Your task to perform on an android device: toggle notifications settings in the gmail app Image 0: 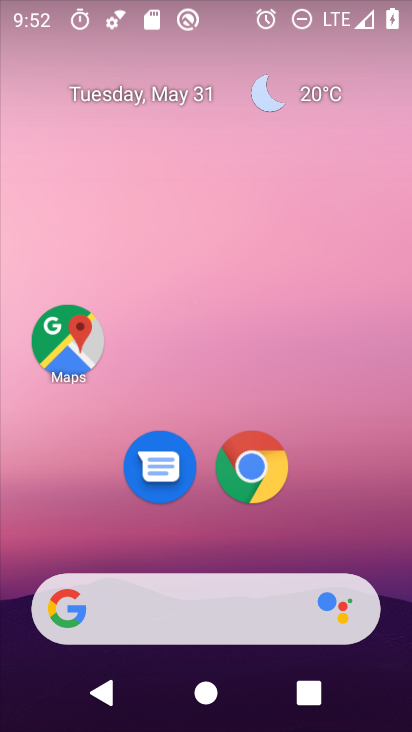
Step 0: drag from (200, 544) to (181, 257)
Your task to perform on an android device: toggle notifications settings in the gmail app Image 1: 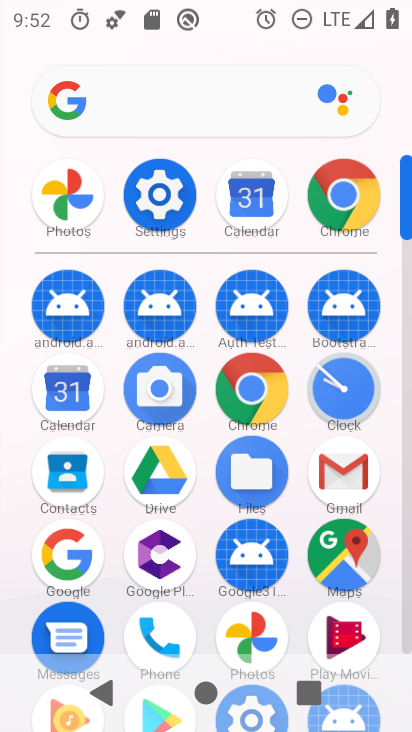
Step 1: click (321, 468)
Your task to perform on an android device: toggle notifications settings in the gmail app Image 2: 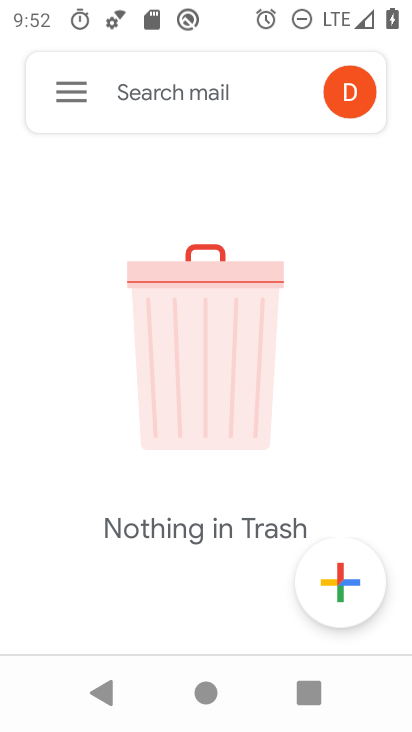
Step 2: drag from (230, 553) to (208, 236)
Your task to perform on an android device: toggle notifications settings in the gmail app Image 3: 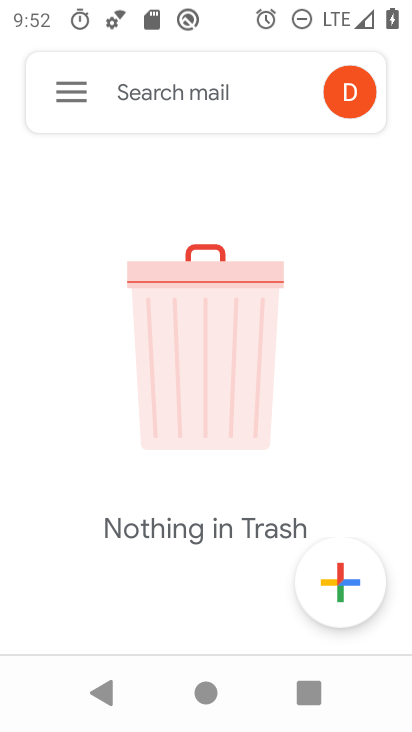
Step 3: click (75, 89)
Your task to perform on an android device: toggle notifications settings in the gmail app Image 4: 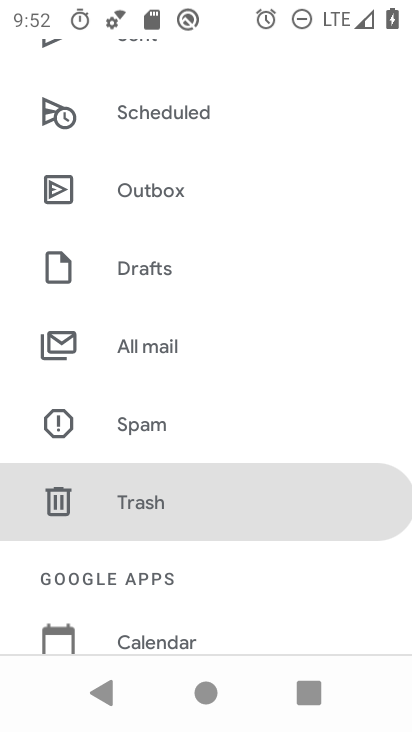
Step 4: drag from (238, 236) to (299, 658)
Your task to perform on an android device: toggle notifications settings in the gmail app Image 5: 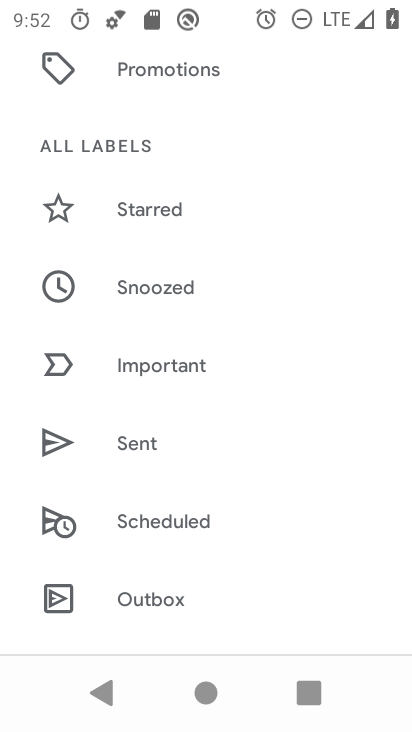
Step 5: drag from (189, 546) to (282, 255)
Your task to perform on an android device: toggle notifications settings in the gmail app Image 6: 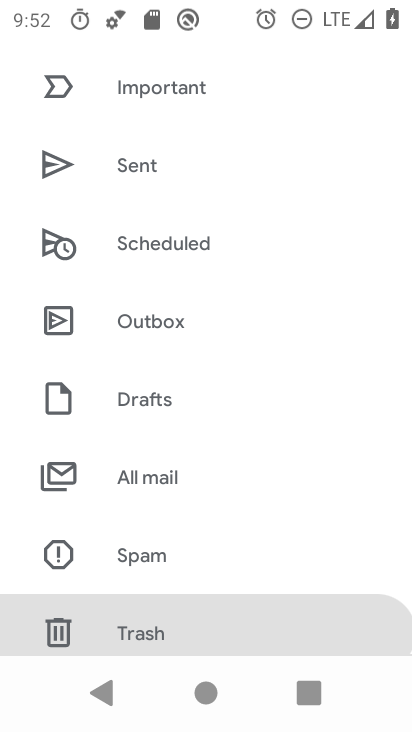
Step 6: drag from (173, 551) to (267, 144)
Your task to perform on an android device: toggle notifications settings in the gmail app Image 7: 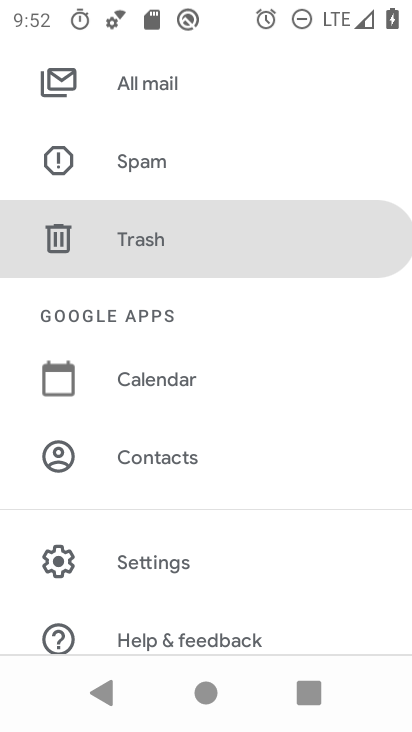
Step 7: click (198, 560)
Your task to perform on an android device: toggle notifications settings in the gmail app Image 8: 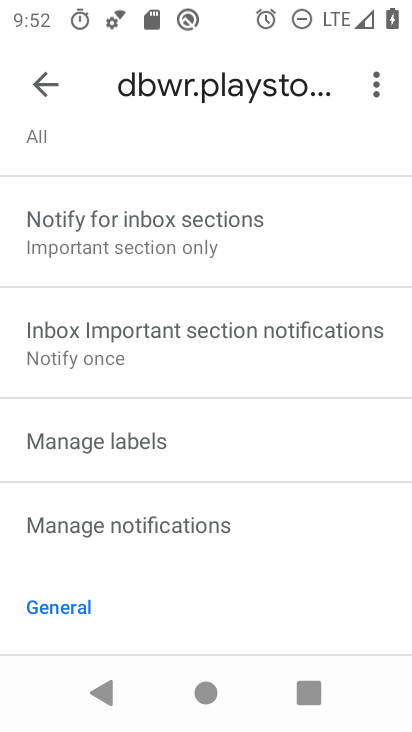
Step 8: drag from (198, 569) to (245, 206)
Your task to perform on an android device: toggle notifications settings in the gmail app Image 9: 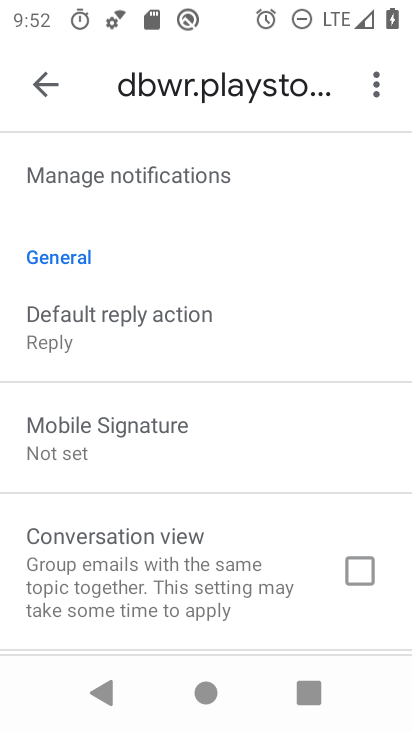
Step 9: click (237, 148)
Your task to perform on an android device: toggle notifications settings in the gmail app Image 10: 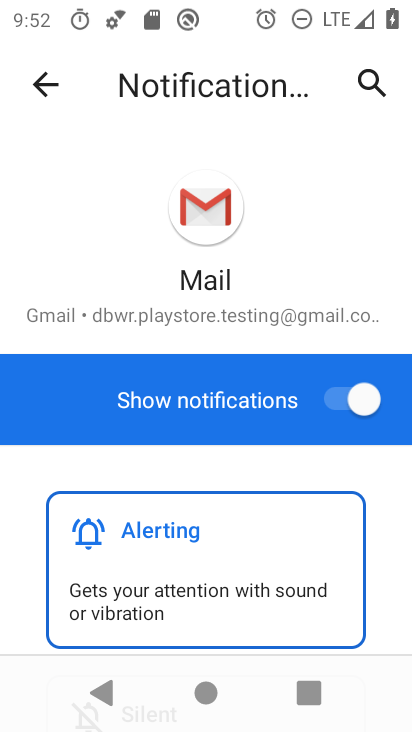
Step 10: drag from (155, 496) to (199, 185)
Your task to perform on an android device: toggle notifications settings in the gmail app Image 11: 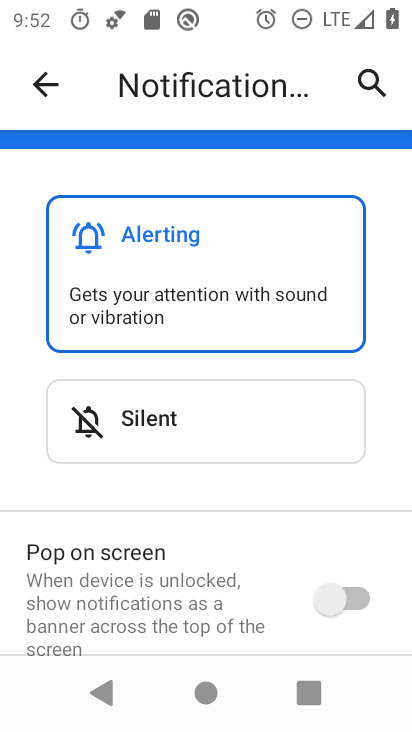
Step 11: drag from (308, 287) to (361, 649)
Your task to perform on an android device: toggle notifications settings in the gmail app Image 12: 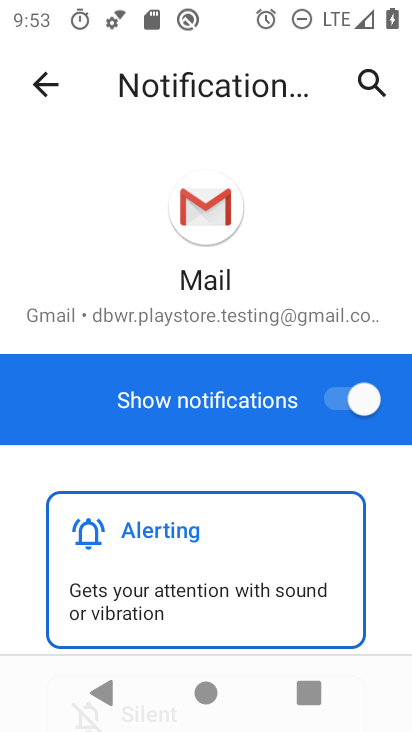
Step 12: click (330, 387)
Your task to perform on an android device: toggle notifications settings in the gmail app Image 13: 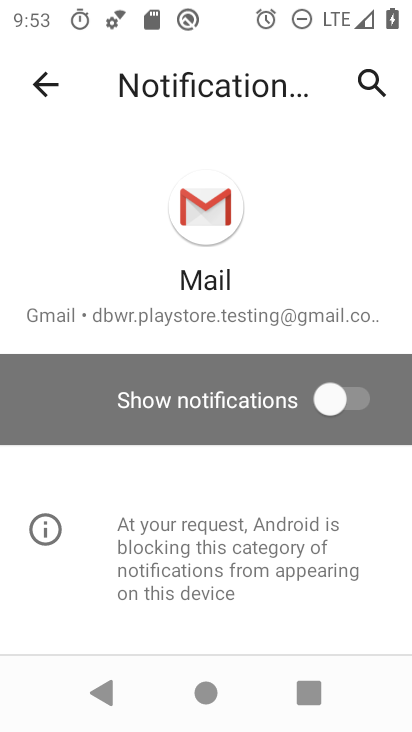
Step 13: task complete